Your task to perform on an android device: toggle show notifications on the lock screen Image 0: 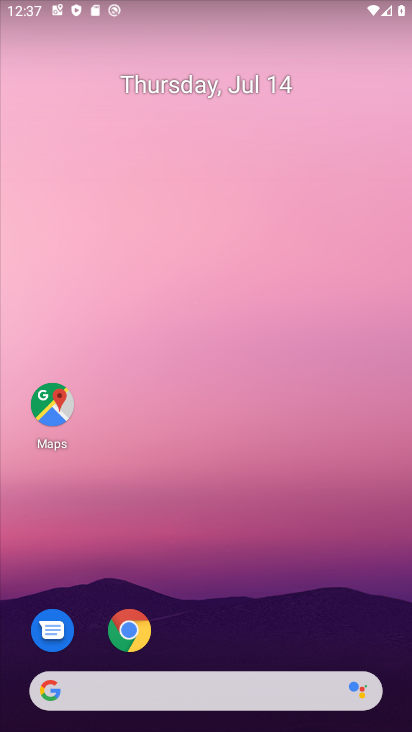
Step 0: drag from (205, 656) to (209, 185)
Your task to perform on an android device: toggle show notifications on the lock screen Image 1: 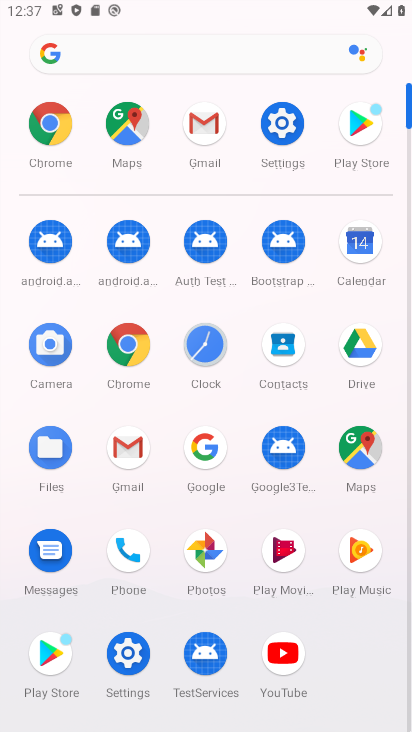
Step 1: click (275, 126)
Your task to perform on an android device: toggle show notifications on the lock screen Image 2: 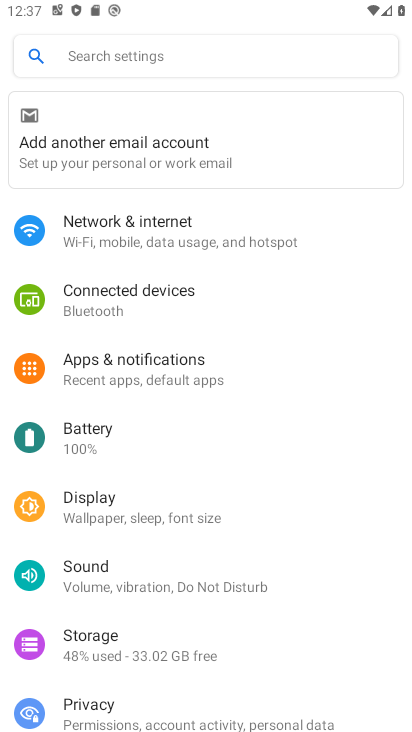
Step 2: click (96, 707)
Your task to perform on an android device: toggle show notifications on the lock screen Image 3: 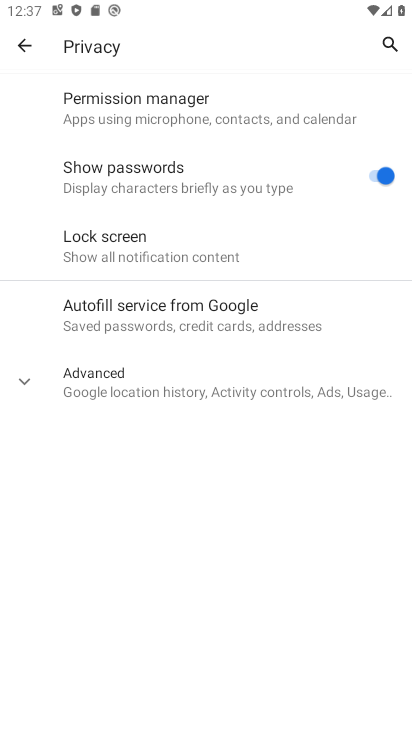
Step 3: click (95, 252)
Your task to perform on an android device: toggle show notifications on the lock screen Image 4: 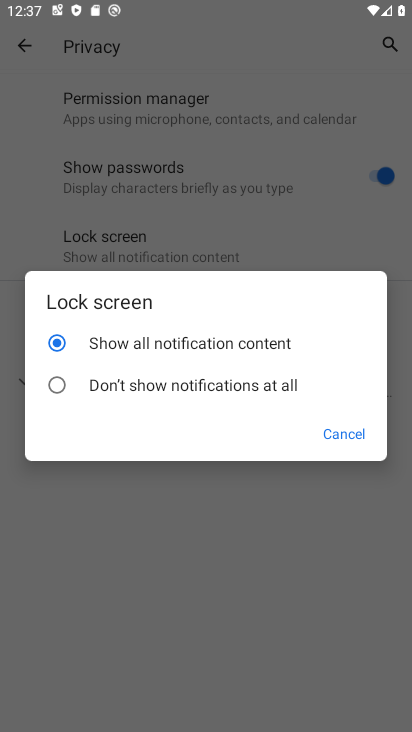
Step 4: click (107, 385)
Your task to perform on an android device: toggle show notifications on the lock screen Image 5: 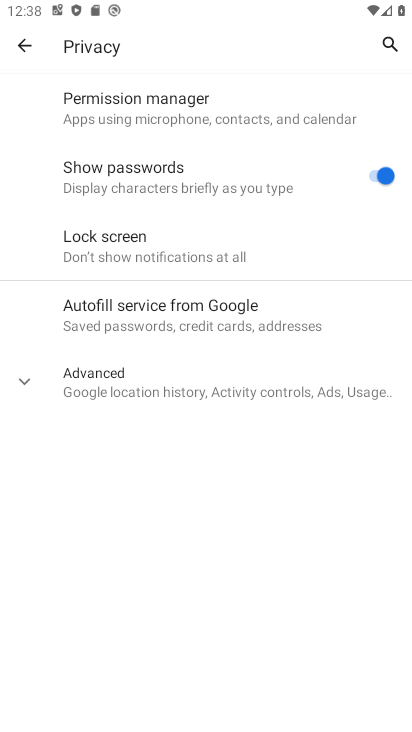
Step 5: task complete